Your task to perform on an android device: open wifi settings Image 0: 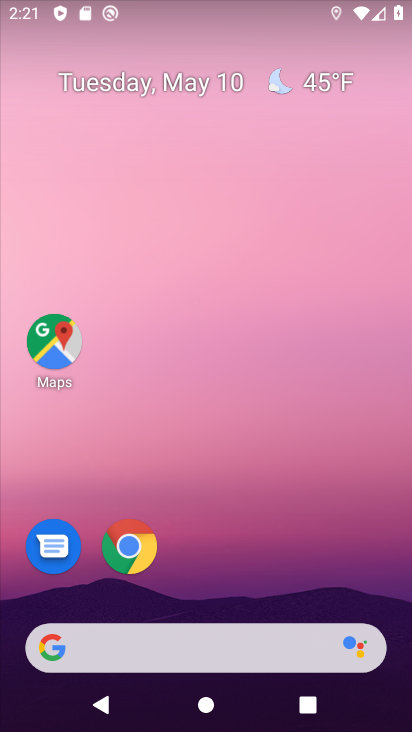
Step 0: drag from (225, 522) to (202, 24)
Your task to perform on an android device: open wifi settings Image 1: 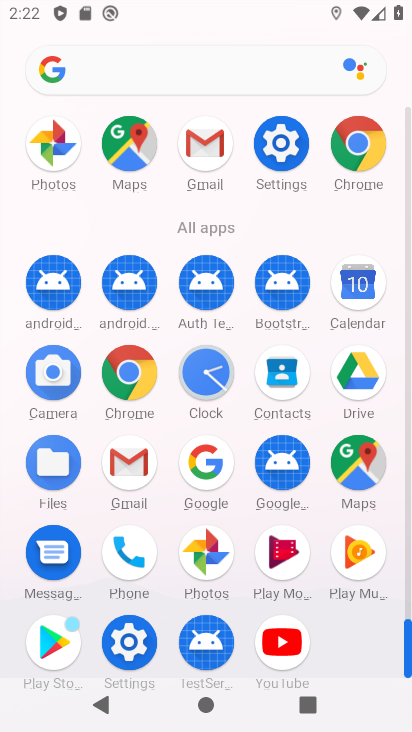
Step 1: click (277, 146)
Your task to perform on an android device: open wifi settings Image 2: 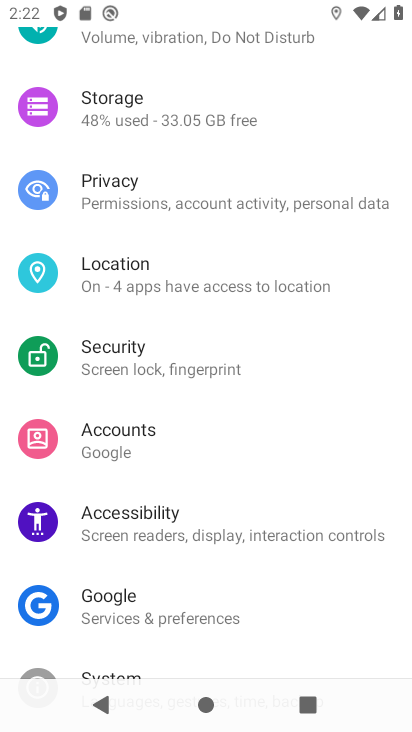
Step 2: drag from (220, 255) to (255, 565)
Your task to perform on an android device: open wifi settings Image 3: 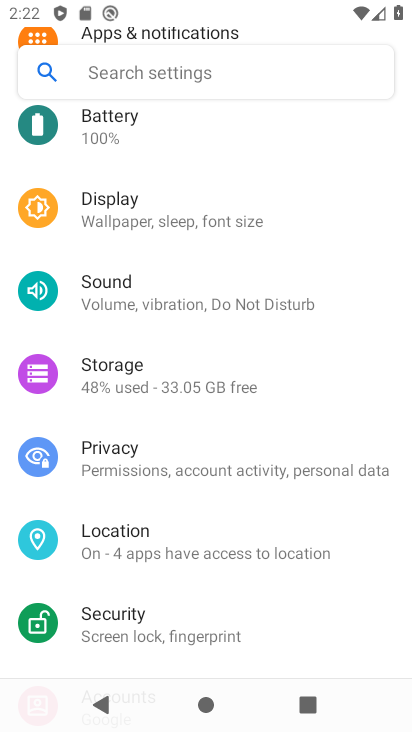
Step 3: drag from (208, 170) to (188, 551)
Your task to perform on an android device: open wifi settings Image 4: 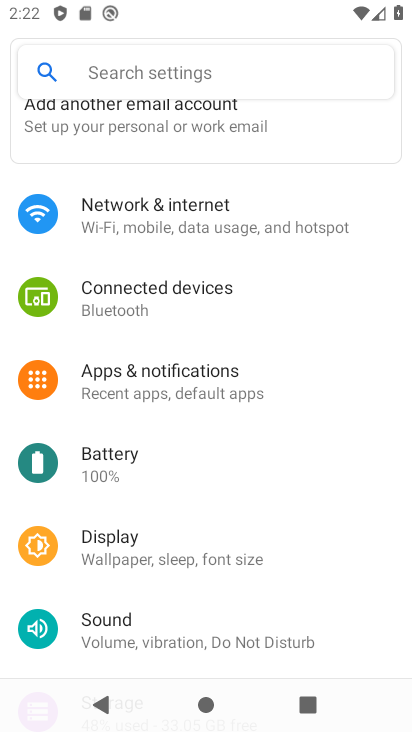
Step 4: click (191, 214)
Your task to perform on an android device: open wifi settings Image 5: 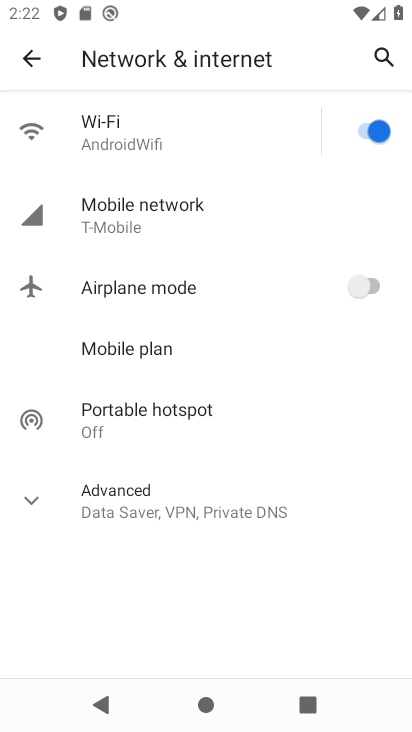
Step 5: click (156, 143)
Your task to perform on an android device: open wifi settings Image 6: 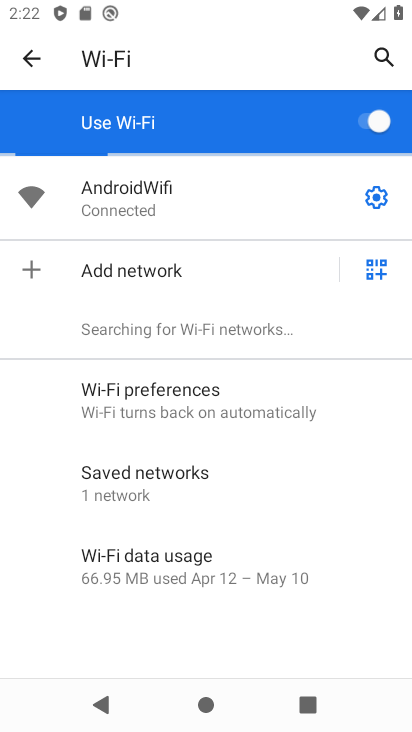
Step 6: task complete